Your task to perform on an android device: When is my next appointment? Image 0: 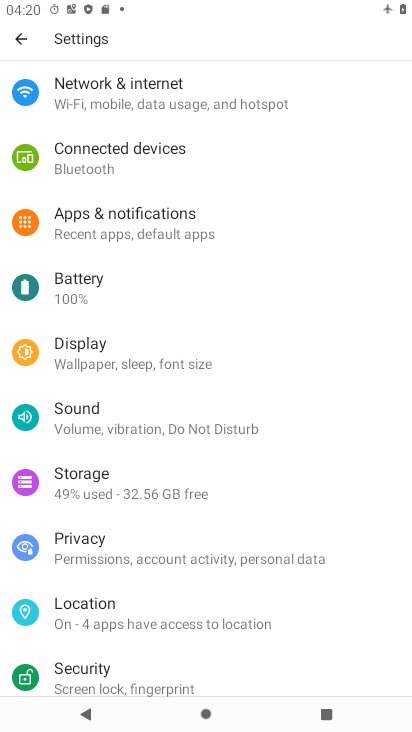
Step 0: press home button
Your task to perform on an android device: When is my next appointment? Image 1: 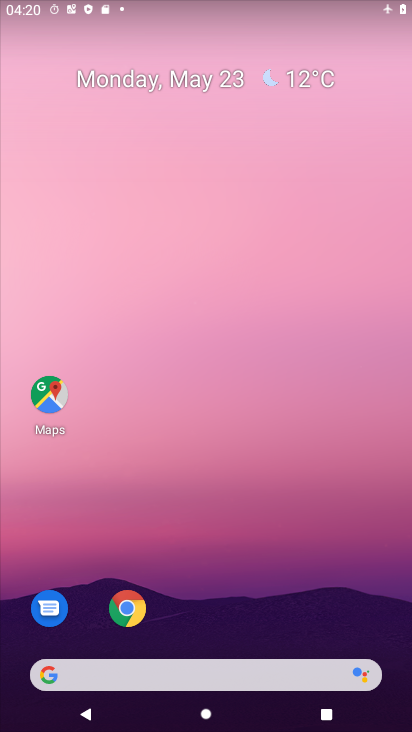
Step 1: drag from (294, 585) to (167, 33)
Your task to perform on an android device: When is my next appointment? Image 2: 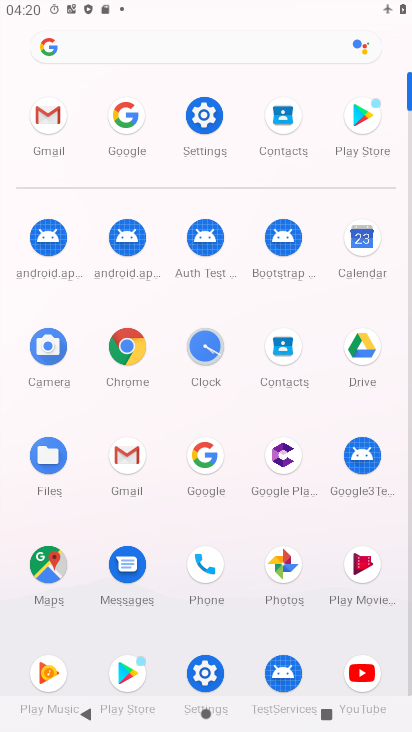
Step 2: click (358, 240)
Your task to perform on an android device: When is my next appointment? Image 3: 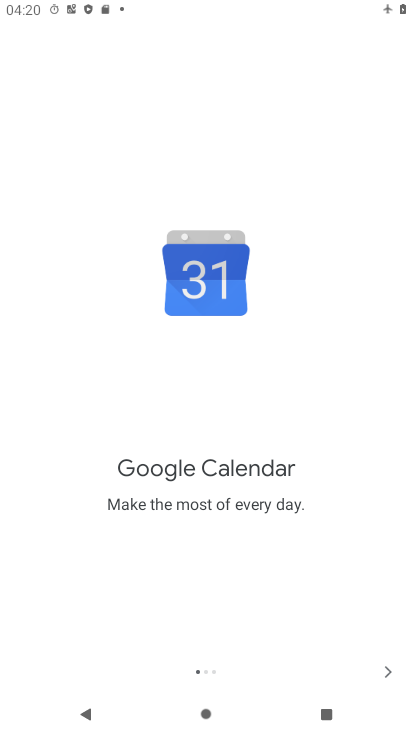
Step 3: click (388, 672)
Your task to perform on an android device: When is my next appointment? Image 4: 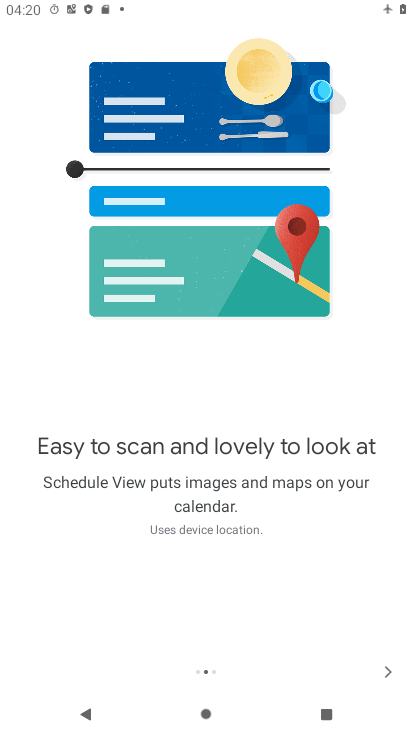
Step 4: click (385, 675)
Your task to perform on an android device: When is my next appointment? Image 5: 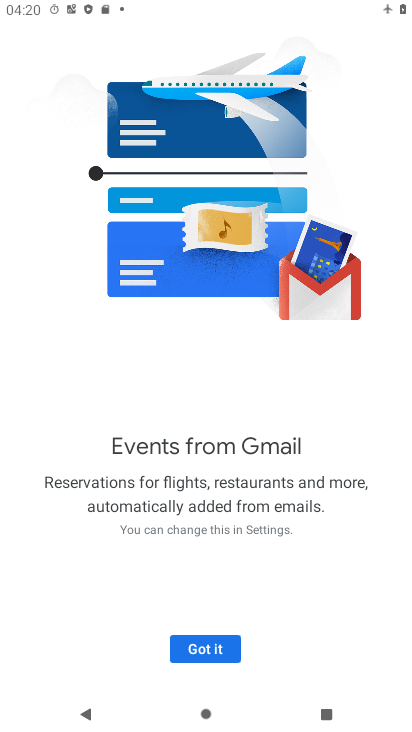
Step 5: click (224, 646)
Your task to perform on an android device: When is my next appointment? Image 6: 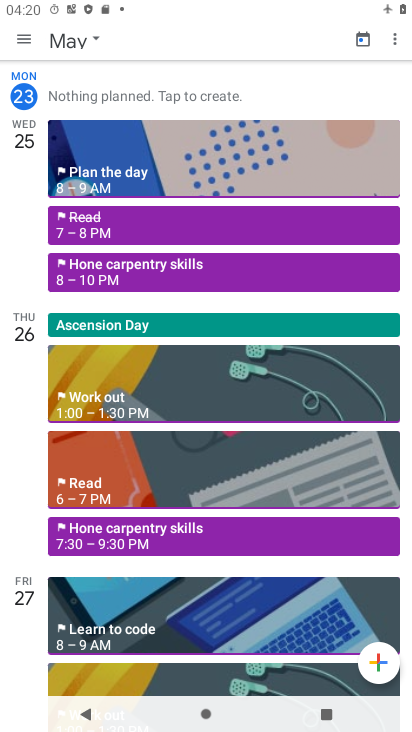
Step 6: task complete